Your task to perform on an android device: turn on airplane mode Image 0: 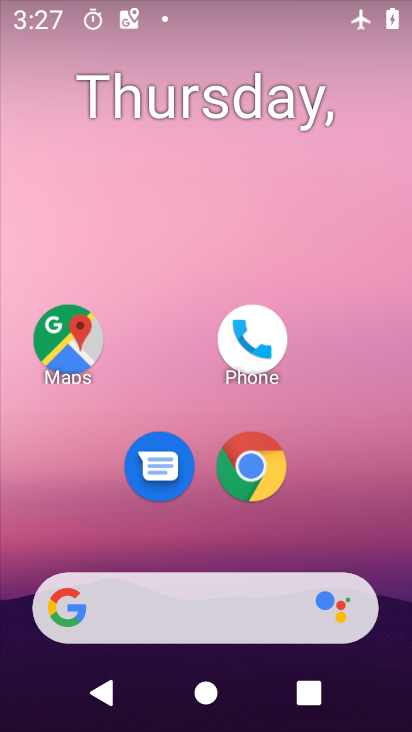
Step 0: drag from (193, 552) to (179, 98)
Your task to perform on an android device: turn on airplane mode Image 1: 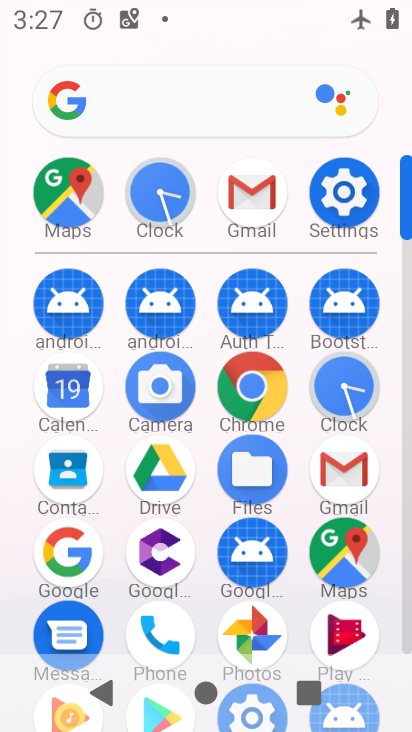
Step 1: click (335, 203)
Your task to perform on an android device: turn on airplane mode Image 2: 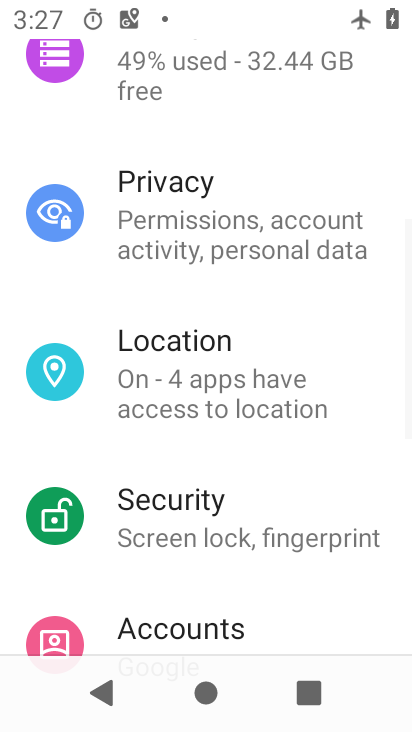
Step 2: drag from (200, 472) to (248, 49)
Your task to perform on an android device: turn on airplane mode Image 3: 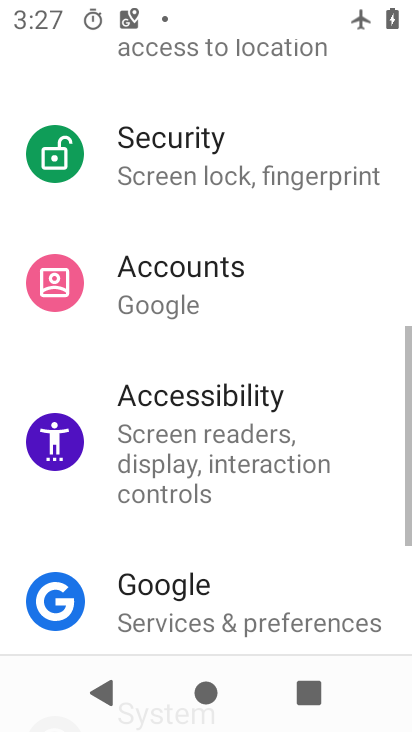
Step 3: drag from (242, 260) to (319, 673)
Your task to perform on an android device: turn on airplane mode Image 4: 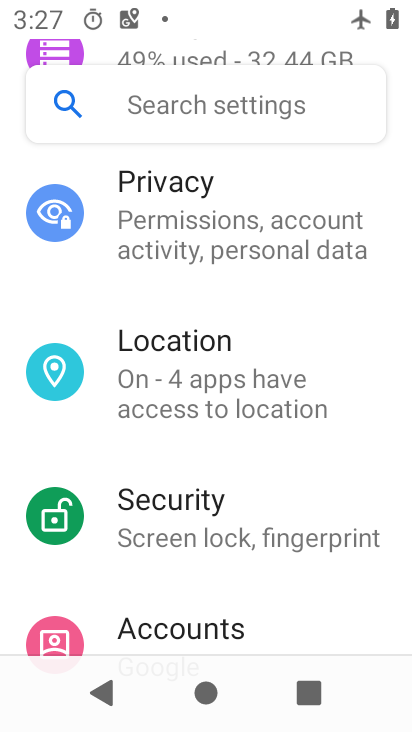
Step 4: drag from (202, 242) to (353, 653)
Your task to perform on an android device: turn on airplane mode Image 5: 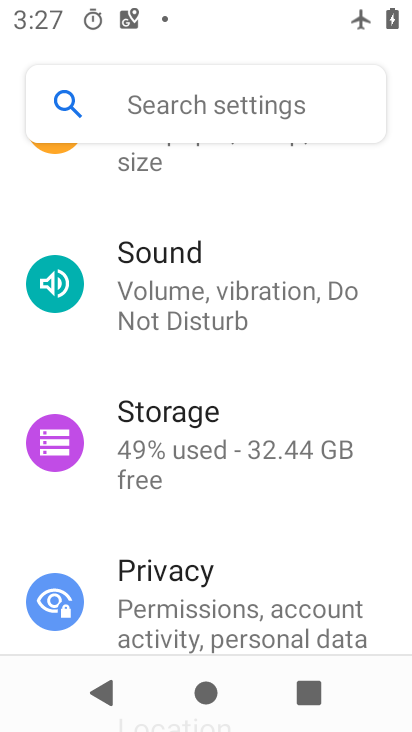
Step 5: drag from (172, 262) to (339, 660)
Your task to perform on an android device: turn on airplane mode Image 6: 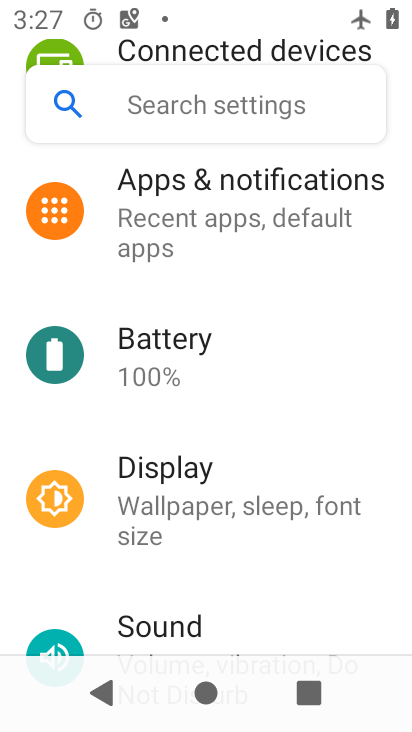
Step 6: drag from (186, 256) to (360, 638)
Your task to perform on an android device: turn on airplane mode Image 7: 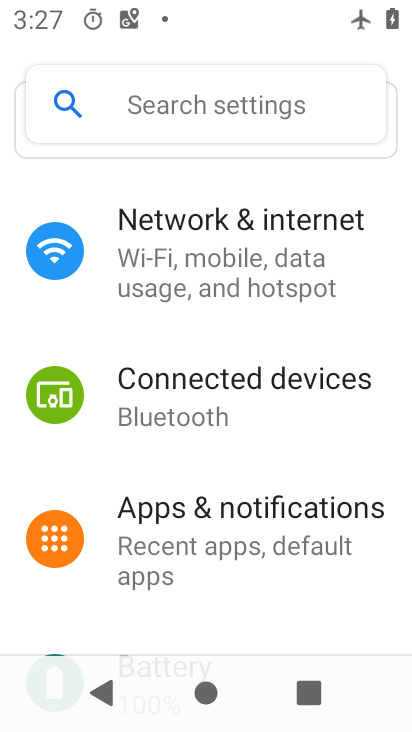
Step 7: drag from (199, 282) to (310, 610)
Your task to perform on an android device: turn on airplane mode Image 8: 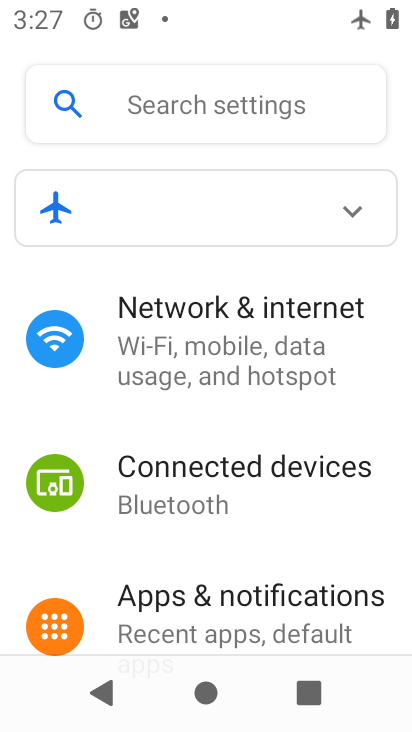
Step 8: click (179, 317)
Your task to perform on an android device: turn on airplane mode Image 9: 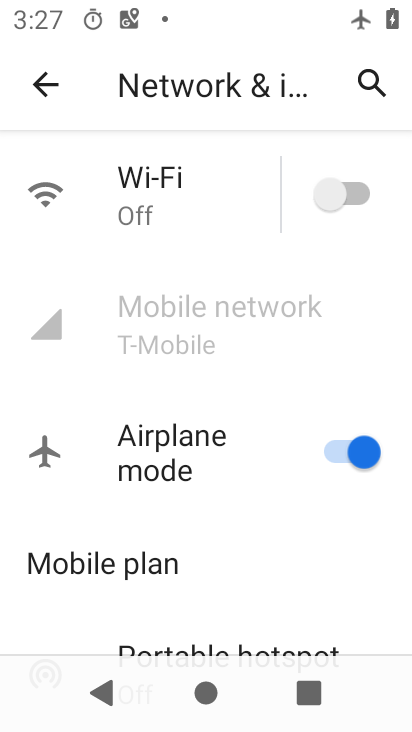
Step 9: task complete